Your task to perform on an android device: install app "ZOOM Cloud Meetings" Image 0: 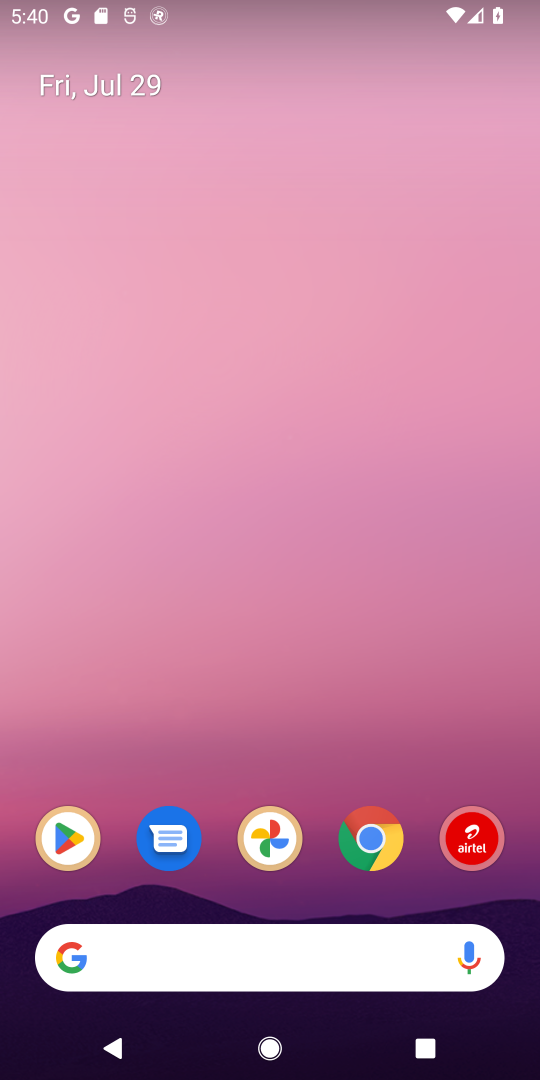
Step 0: click (96, 848)
Your task to perform on an android device: install app "ZOOM Cloud Meetings" Image 1: 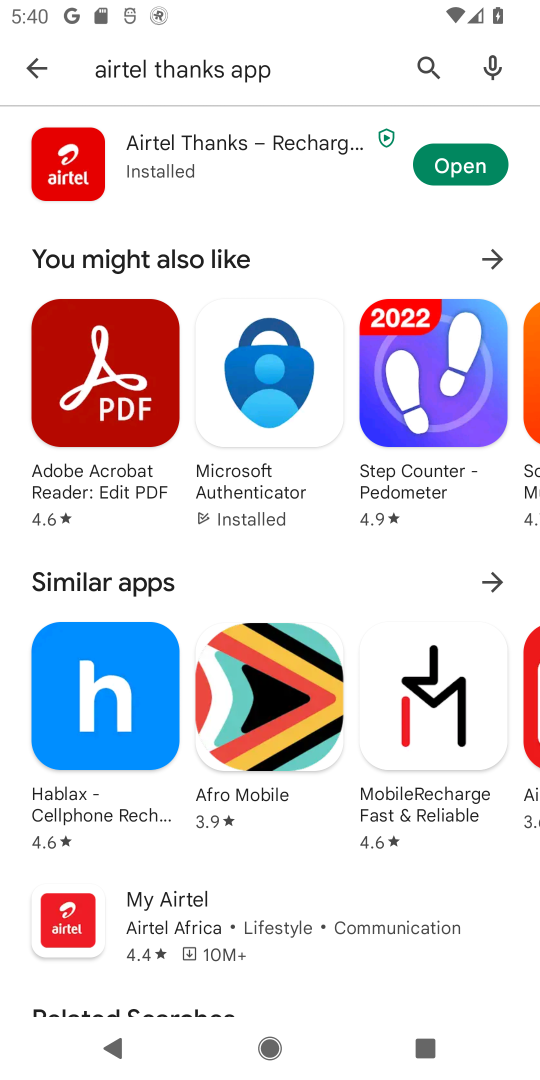
Step 1: click (414, 64)
Your task to perform on an android device: install app "ZOOM Cloud Meetings" Image 2: 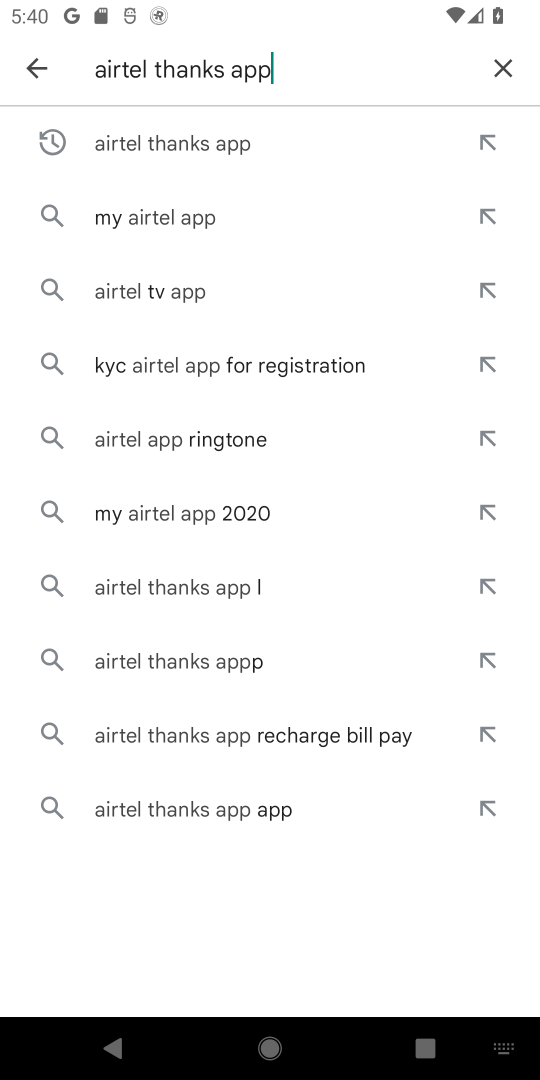
Step 2: click (509, 59)
Your task to perform on an android device: install app "ZOOM Cloud Meetings" Image 3: 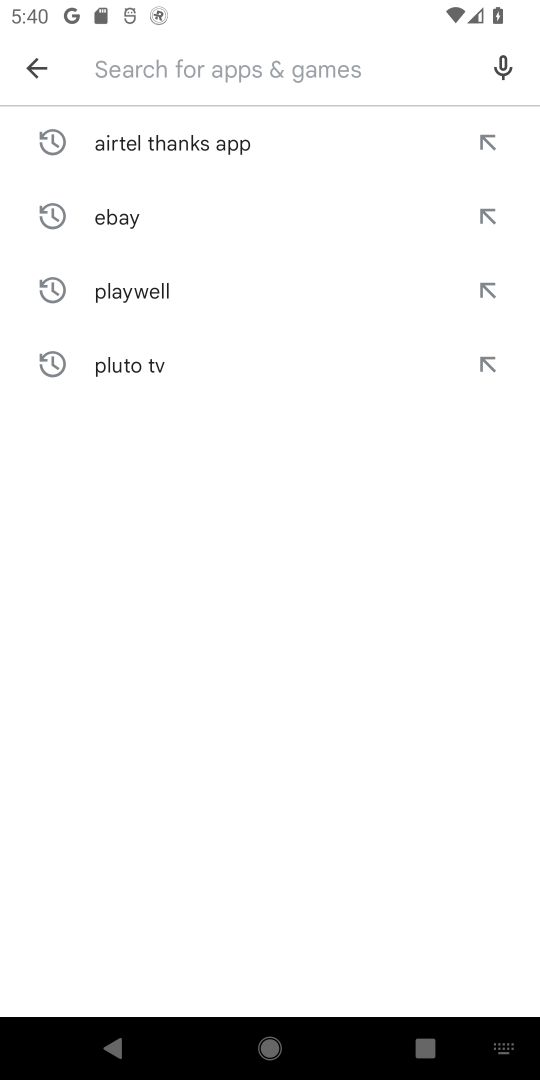
Step 3: click (243, 78)
Your task to perform on an android device: install app "ZOOM Cloud Meetings" Image 4: 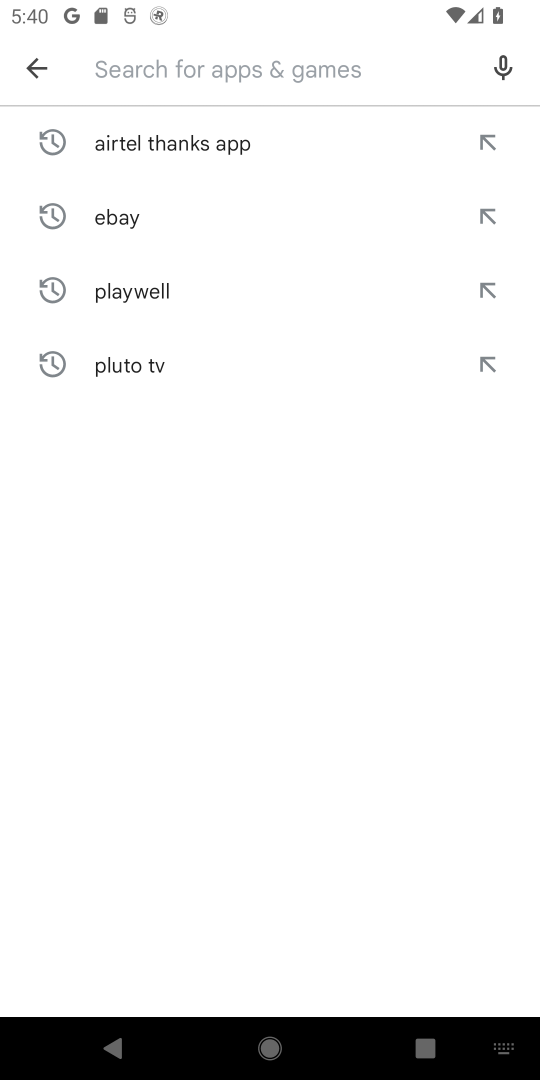
Step 4: type "zoom"
Your task to perform on an android device: install app "ZOOM Cloud Meetings" Image 5: 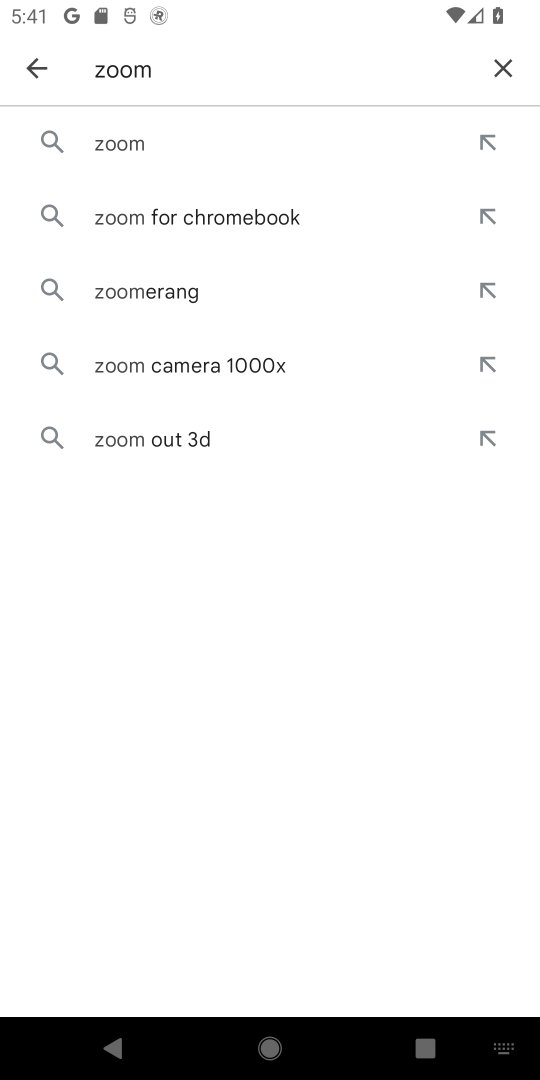
Step 5: click (156, 149)
Your task to perform on an android device: install app "ZOOM Cloud Meetings" Image 6: 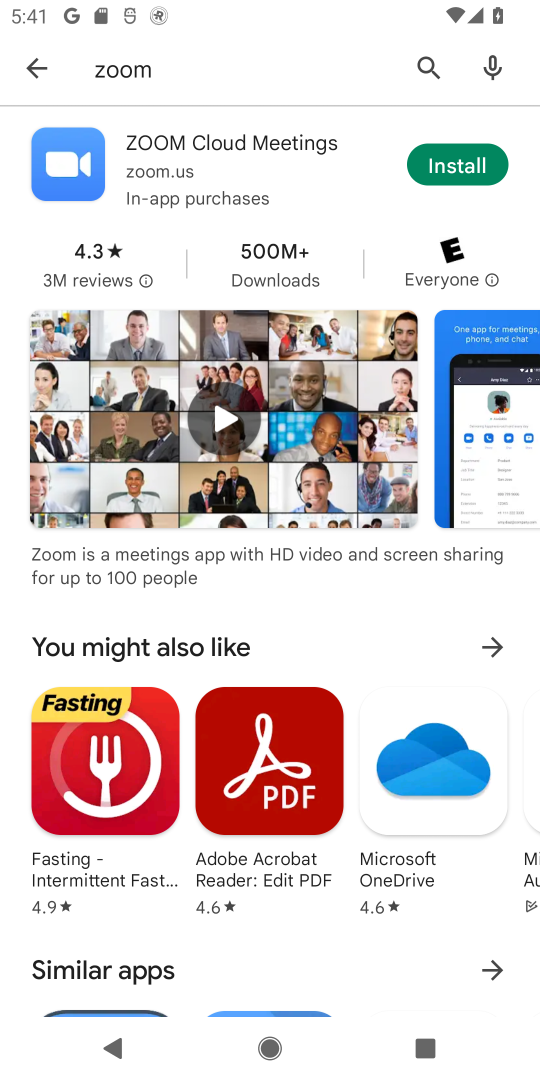
Step 6: click (446, 139)
Your task to perform on an android device: install app "ZOOM Cloud Meetings" Image 7: 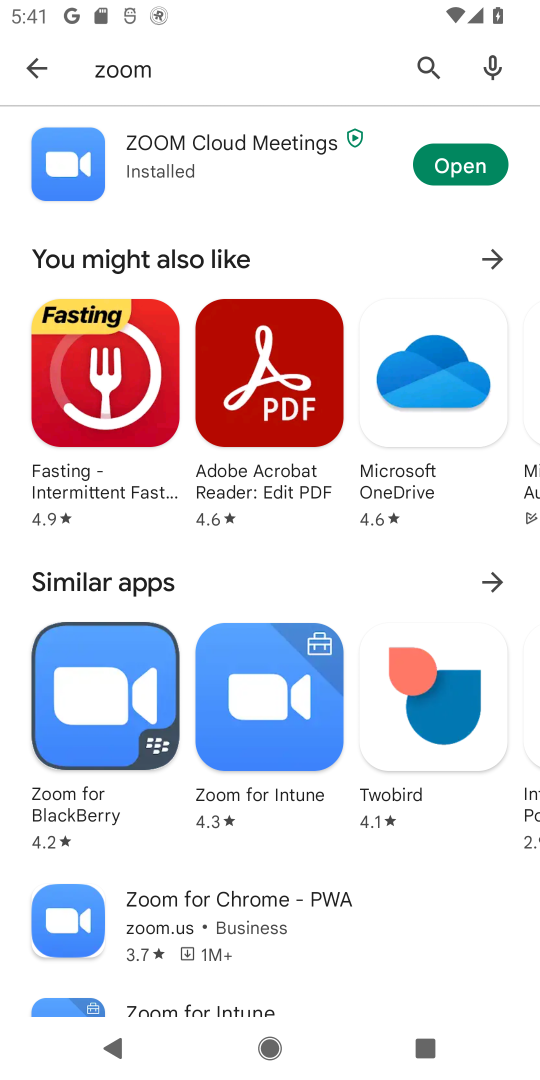
Step 7: click (464, 161)
Your task to perform on an android device: install app "ZOOM Cloud Meetings" Image 8: 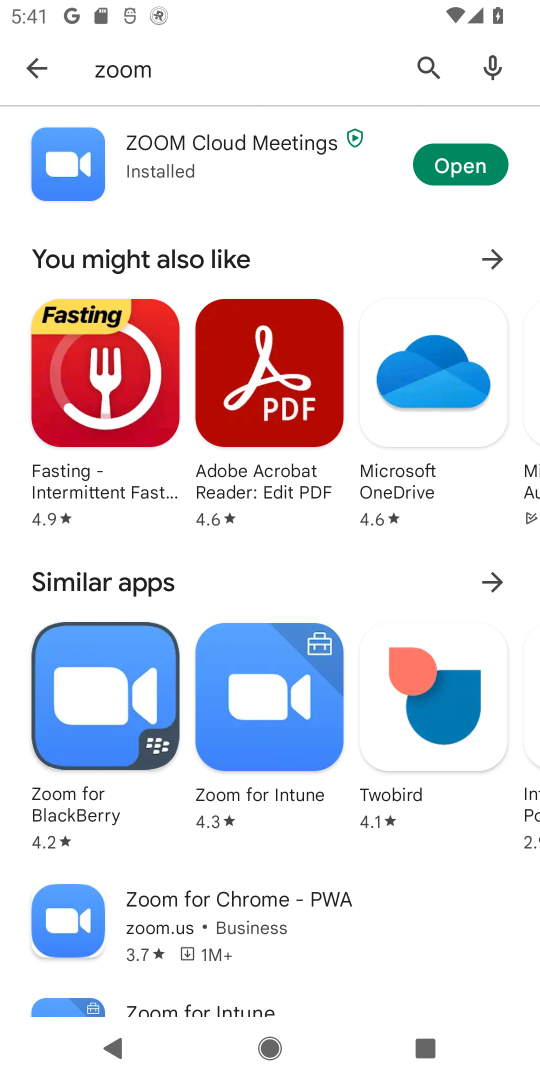
Step 8: task complete